Your task to perform on an android device: see tabs open on other devices in the chrome app Image 0: 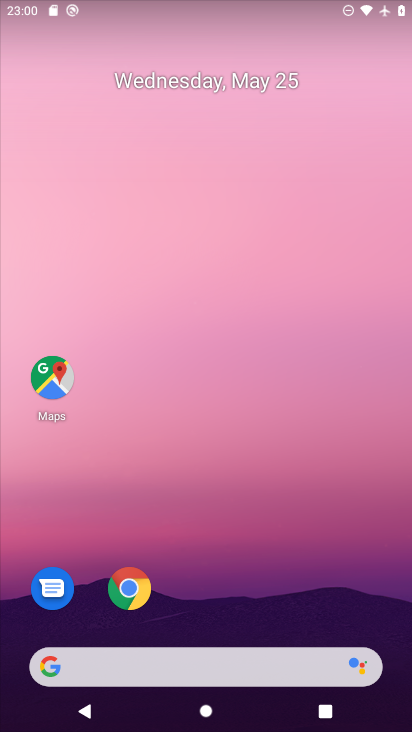
Step 0: click (131, 591)
Your task to perform on an android device: see tabs open on other devices in the chrome app Image 1: 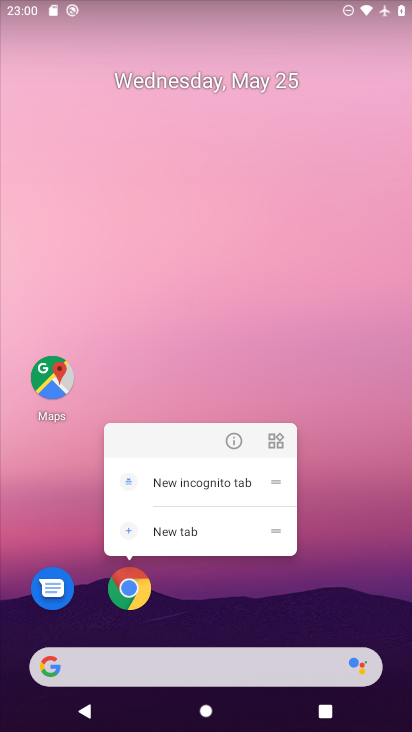
Step 1: click (125, 592)
Your task to perform on an android device: see tabs open on other devices in the chrome app Image 2: 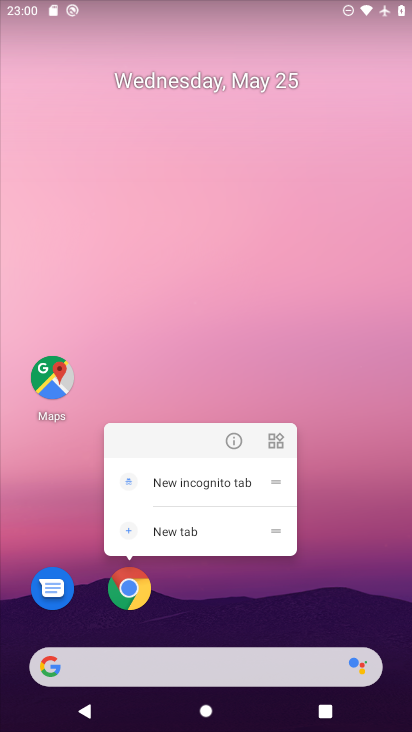
Step 2: click (125, 591)
Your task to perform on an android device: see tabs open on other devices in the chrome app Image 3: 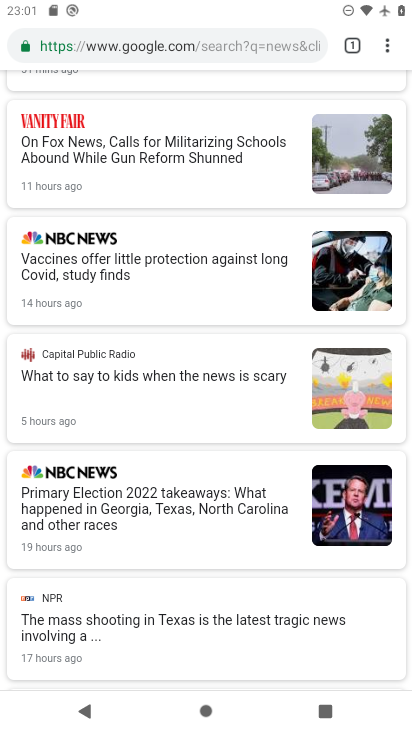
Step 3: click (380, 44)
Your task to perform on an android device: see tabs open on other devices in the chrome app Image 4: 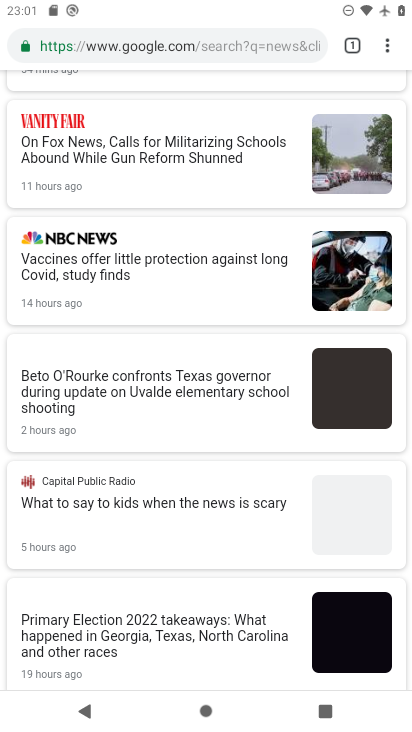
Step 4: drag from (377, 46) to (246, 513)
Your task to perform on an android device: see tabs open on other devices in the chrome app Image 5: 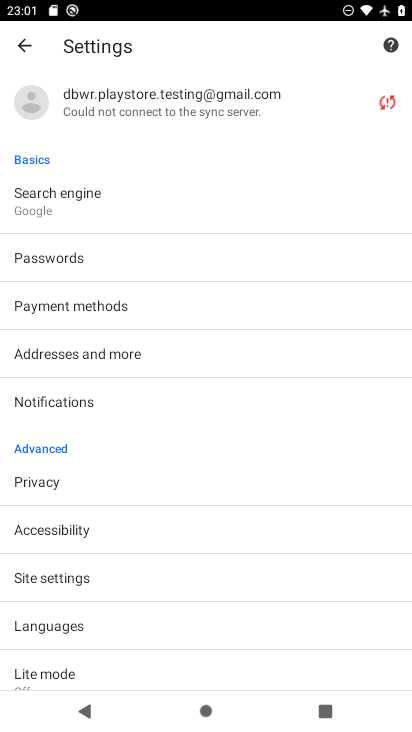
Step 5: click (23, 47)
Your task to perform on an android device: see tabs open on other devices in the chrome app Image 6: 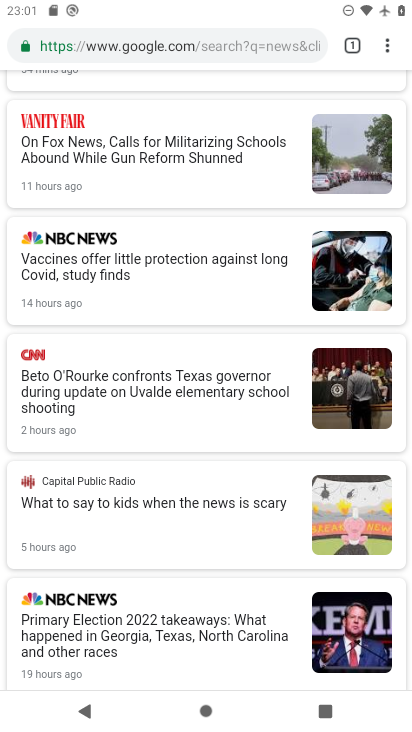
Step 6: task complete